Your task to perform on an android device: toggle show notifications on the lock screen Image 0: 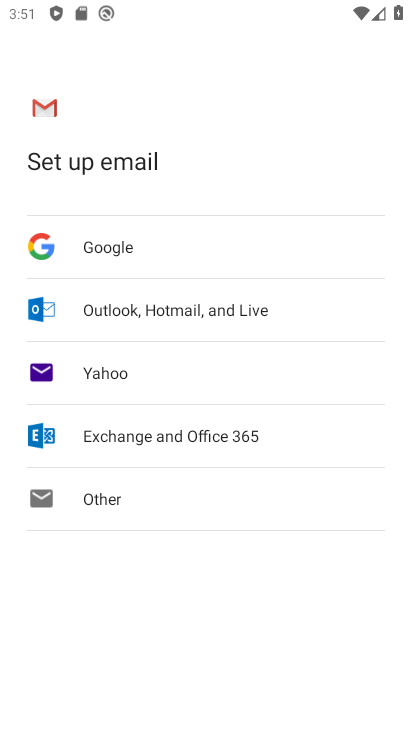
Step 0: press home button
Your task to perform on an android device: toggle show notifications on the lock screen Image 1: 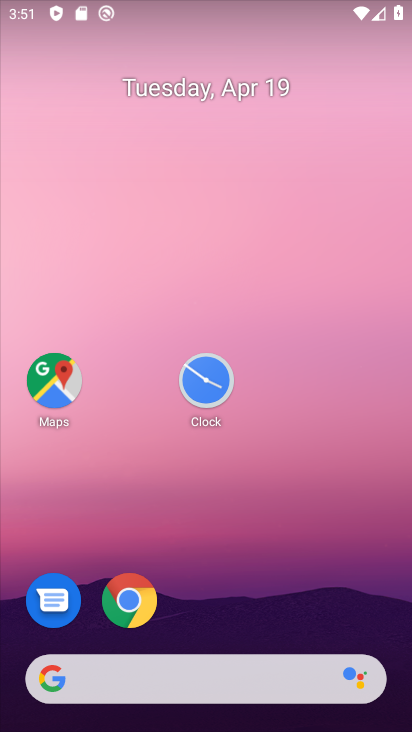
Step 1: drag from (277, 715) to (229, 187)
Your task to perform on an android device: toggle show notifications on the lock screen Image 2: 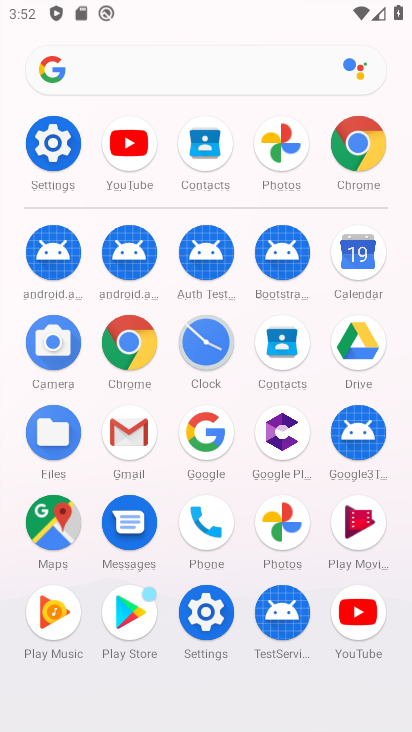
Step 2: click (42, 148)
Your task to perform on an android device: toggle show notifications on the lock screen Image 3: 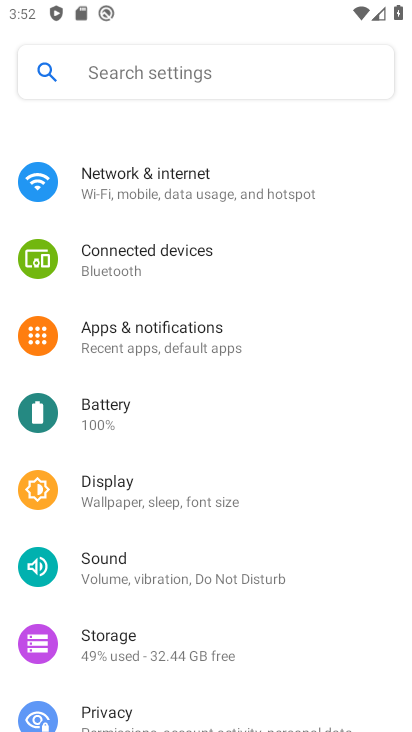
Step 3: click (42, 148)
Your task to perform on an android device: toggle show notifications on the lock screen Image 4: 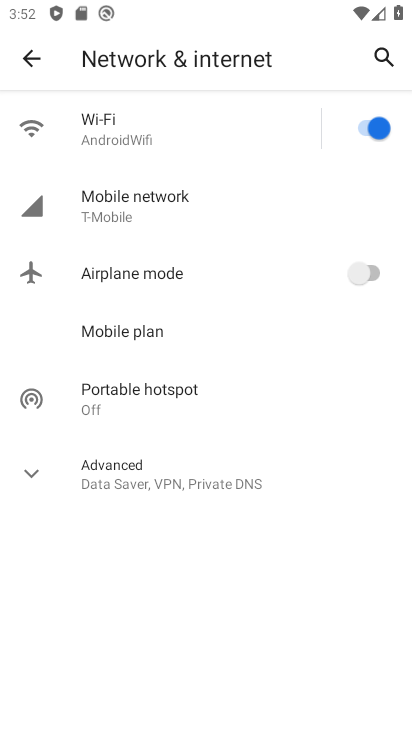
Step 4: click (32, 62)
Your task to perform on an android device: toggle show notifications on the lock screen Image 5: 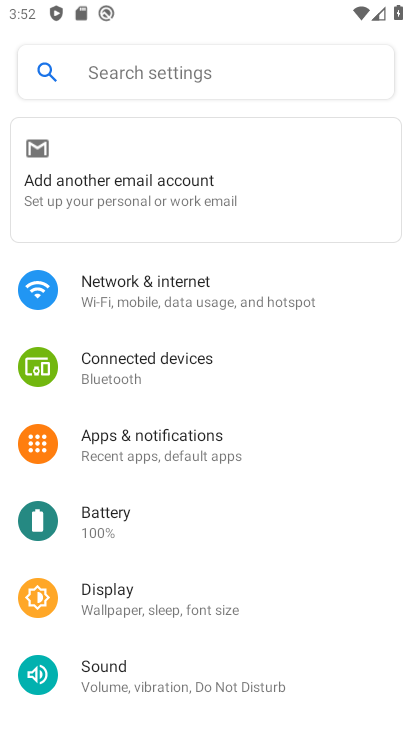
Step 5: click (105, 448)
Your task to perform on an android device: toggle show notifications on the lock screen Image 6: 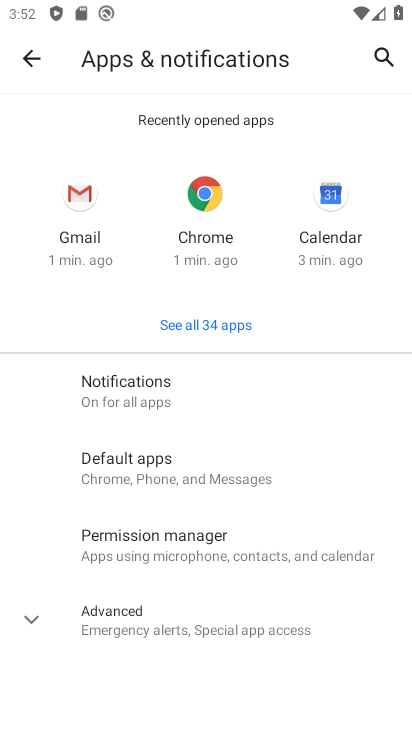
Step 6: click (136, 380)
Your task to perform on an android device: toggle show notifications on the lock screen Image 7: 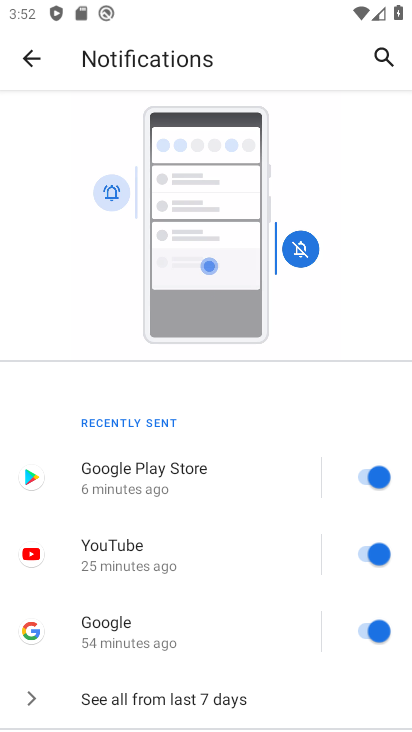
Step 7: drag from (187, 417) to (161, 305)
Your task to perform on an android device: toggle show notifications on the lock screen Image 8: 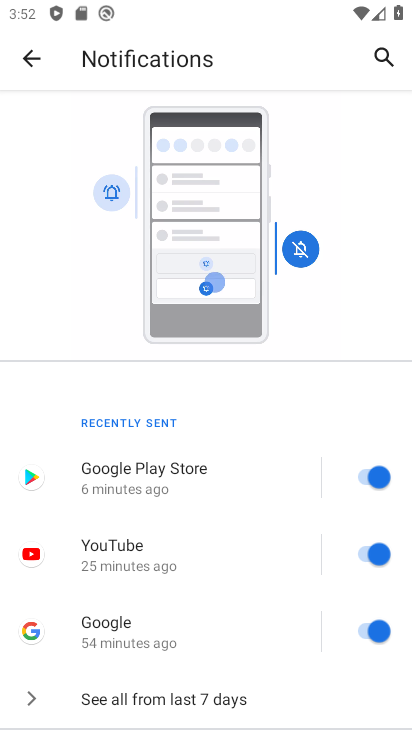
Step 8: drag from (212, 509) to (169, 231)
Your task to perform on an android device: toggle show notifications on the lock screen Image 9: 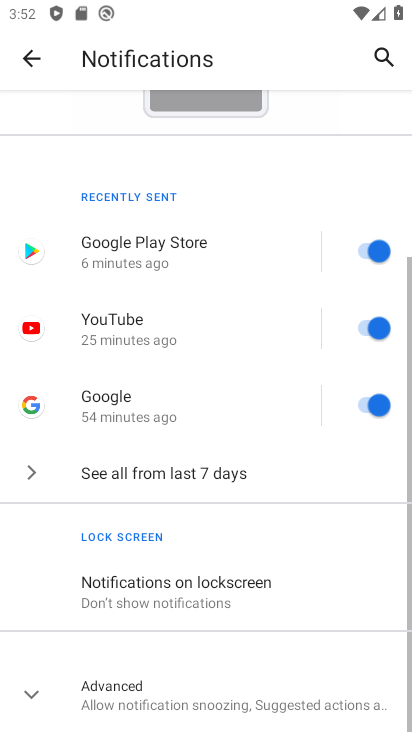
Step 9: drag from (159, 317) to (190, 215)
Your task to perform on an android device: toggle show notifications on the lock screen Image 10: 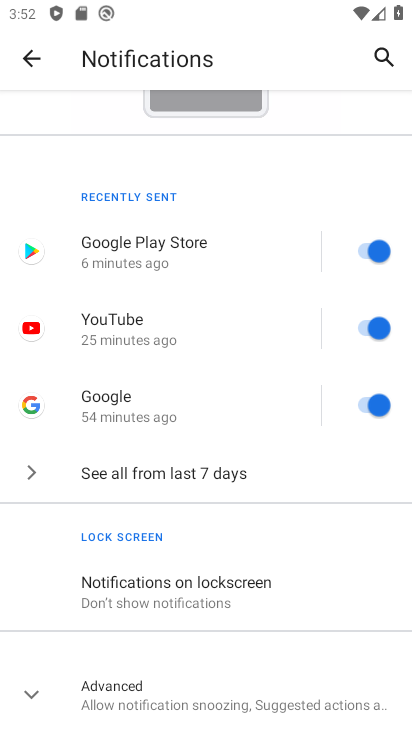
Step 10: click (129, 591)
Your task to perform on an android device: toggle show notifications on the lock screen Image 11: 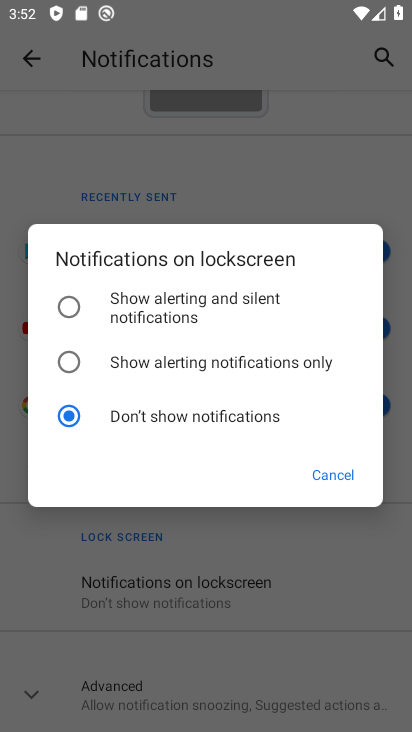
Step 11: click (62, 298)
Your task to perform on an android device: toggle show notifications on the lock screen Image 12: 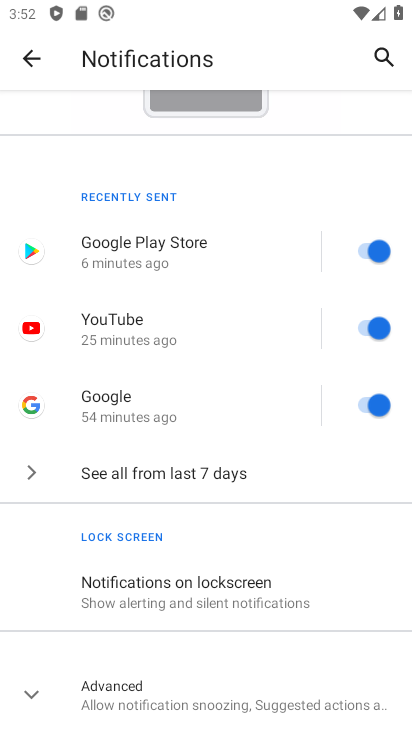
Step 12: click (144, 605)
Your task to perform on an android device: toggle show notifications on the lock screen Image 13: 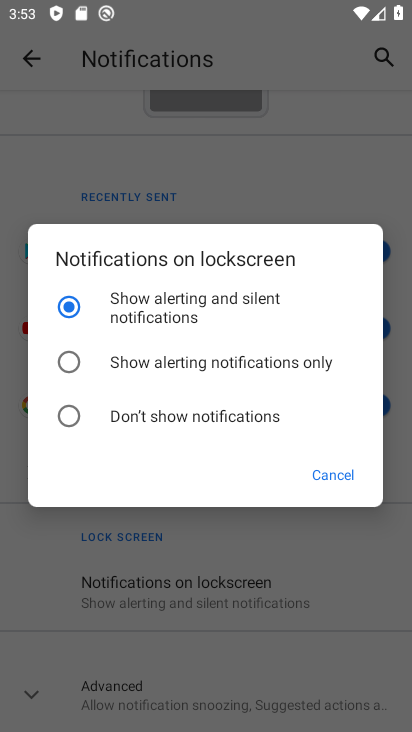
Step 13: click (328, 469)
Your task to perform on an android device: toggle show notifications on the lock screen Image 14: 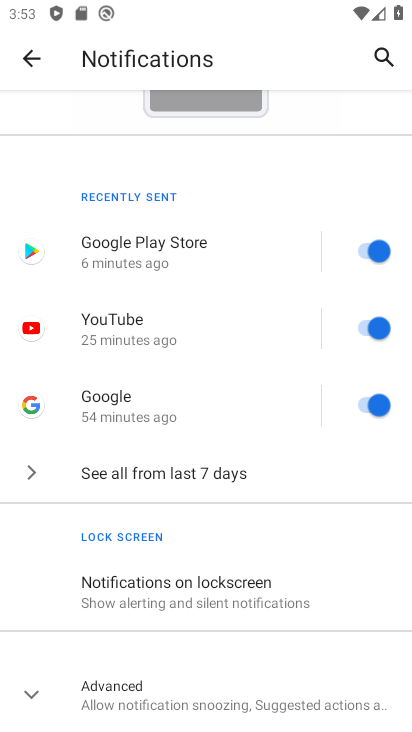
Step 14: task complete